Your task to perform on an android device: toggle translation in the chrome app Image 0: 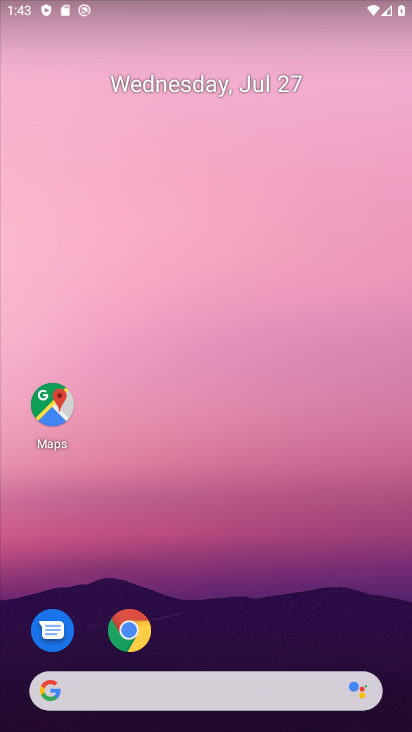
Step 0: click (145, 625)
Your task to perform on an android device: toggle translation in the chrome app Image 1: 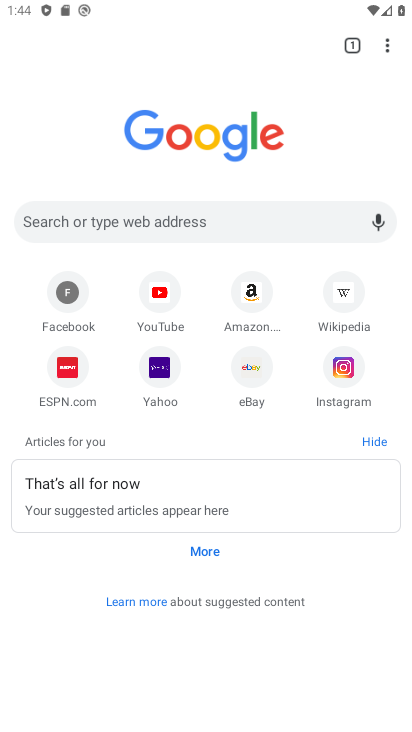
Step 1: click (384, 48)
Your task to perform on an android device: toggle translation in the chrome app Image 2: 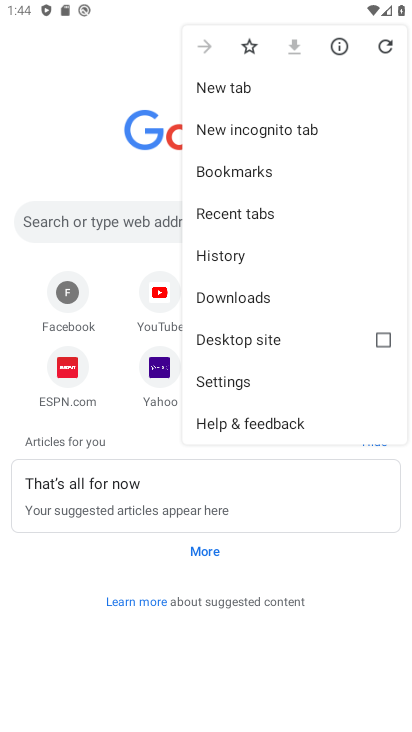
Step 2: click (252, 379)
Your task to perform on an android device: toggle translation in the chrome app Image 3: 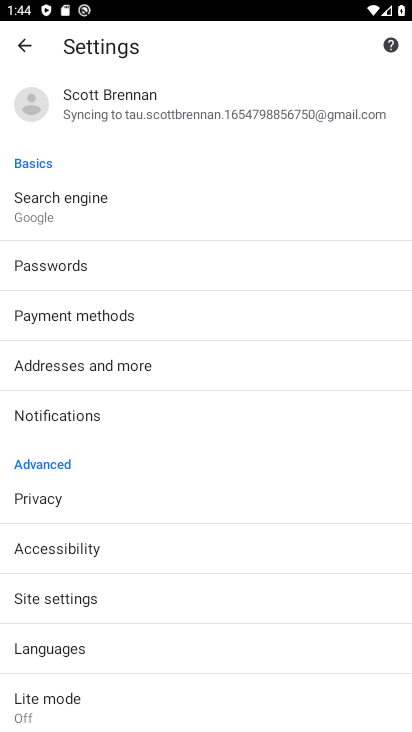
Step 3: click (80, 644)
Your task to perform on an android device: toggle translation in the chrome app Image 4: 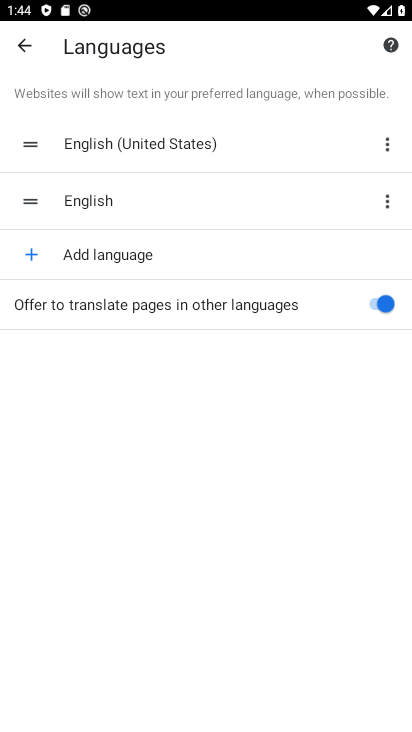
Step 4: click (375, 300)
Your task to perform on an android device: toggle translation in the chrome app Image 5: 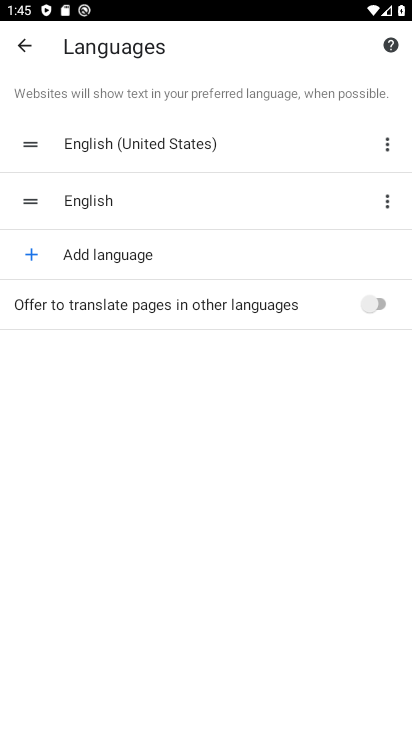
Step 5: task complete